Your task to perform on an android device: turn on priority inbox in the gmail app Image 0: 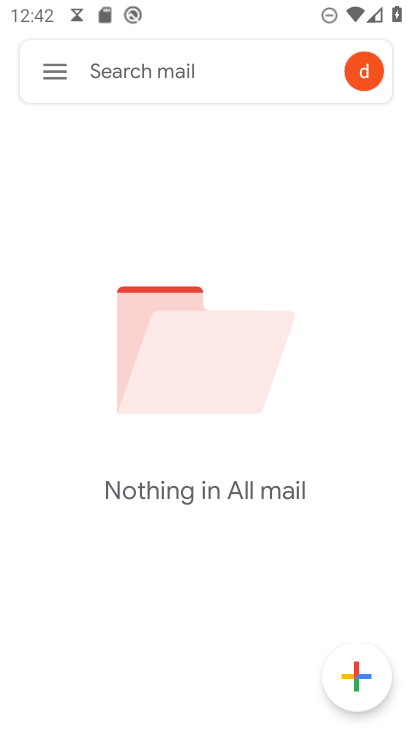
Step 0: press home button
Your task to perform on an android device: turn on priority inbox in the gmail app Image 1: 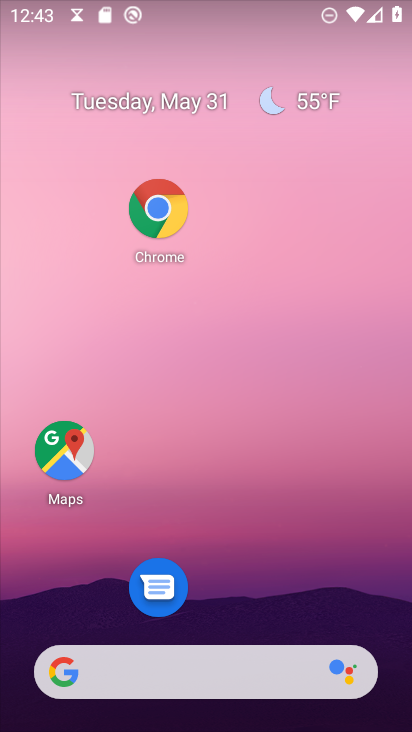
Step 1: drag from (240, 618) to (208, 192)
Your task to perform on an android device: turn on priority inbox in the gmail app Image 2: 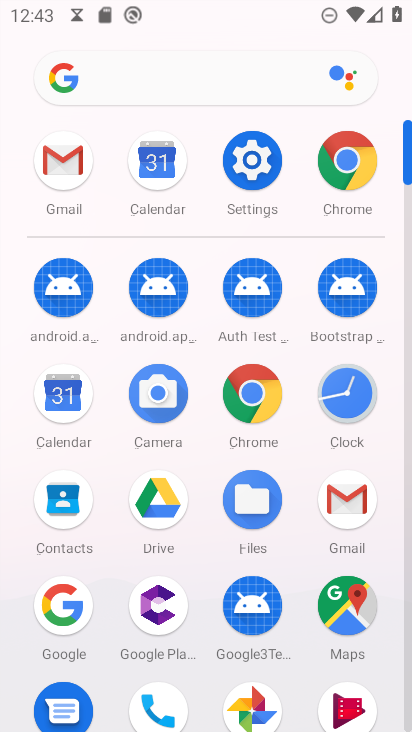
Step 2: click (344, 502)
Your task to perform on an android device: turn on priority inbox in the gmail app Image 3: 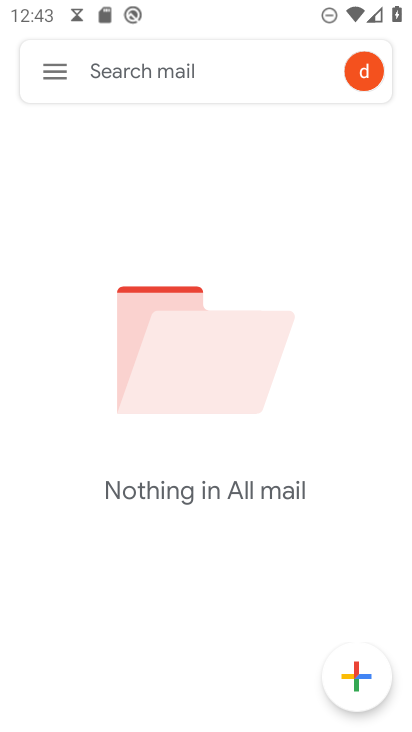
Step 3: click (45, 78)
Your task to perform on an android device: turn on priority inbox in the gmail app Image 4: 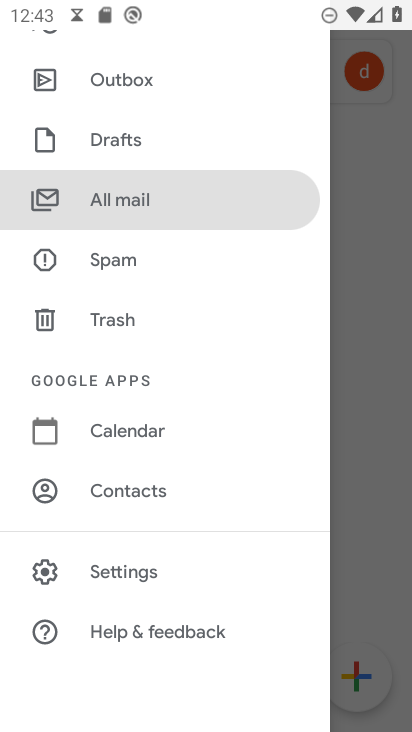
Step 4: click (86, 562)
Your task to perform on an android device: turn on priority inbox in the gmail app Image 5: 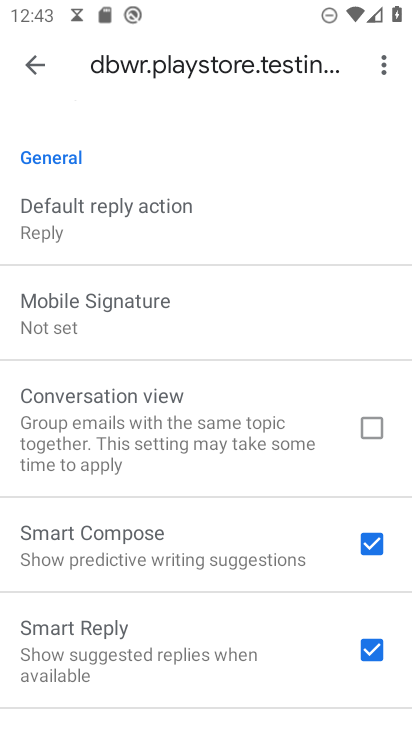
Step 5: drag from (217, 167) to (207, 573)
Your task to perform on an android device: turn on priority inbox in the gmail app Image 6: 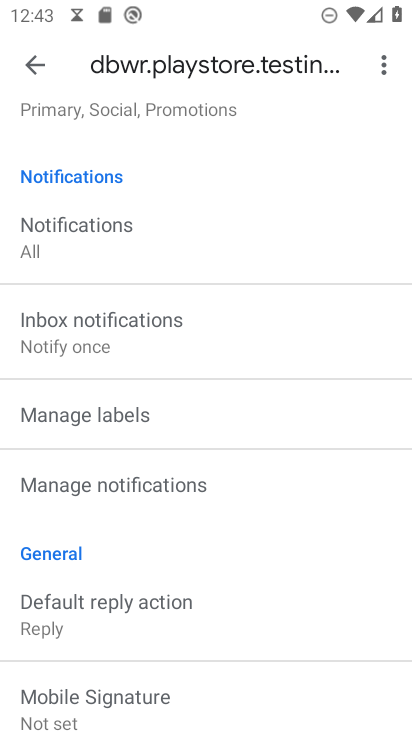
Step 6: drag from (210, 215) to (215, 541)
Your task to perform on an android device: turn on priority inbox in the gmail app Image 7: 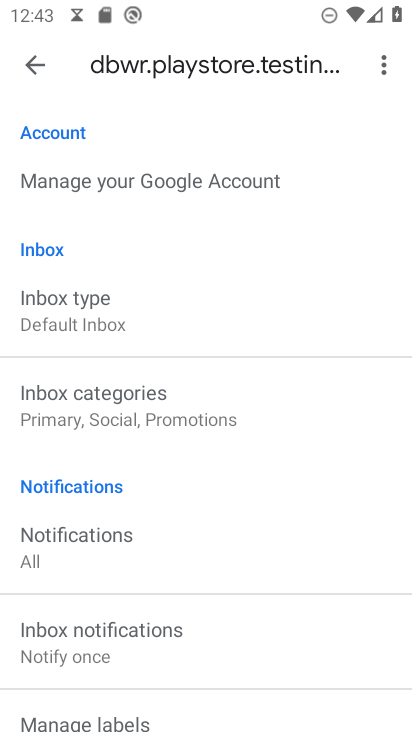
Step 7: click (83, 307)
Your task to perform on an android device: turn on priority inbox in the gmail app Image 8: 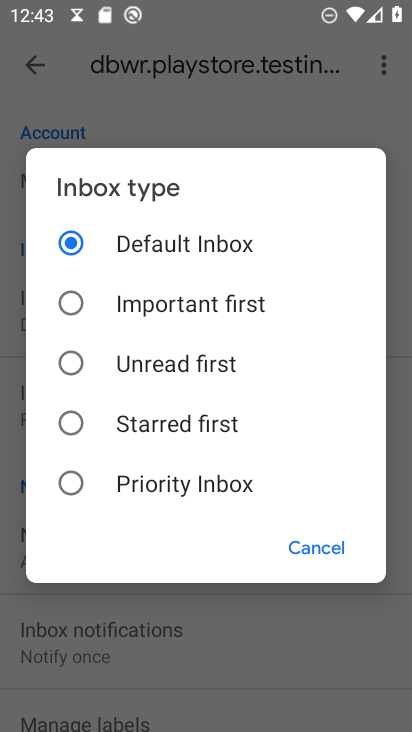
Step 8: click (73, 482)
Your task to perform on an android device: turn on priority inbox in the gmail app Image 9: 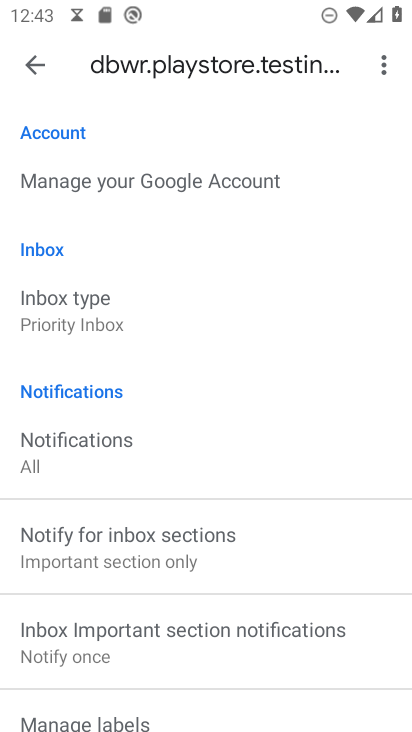
Step 9: task complete